Your task to perform on an android device: Open display settings Image 0: 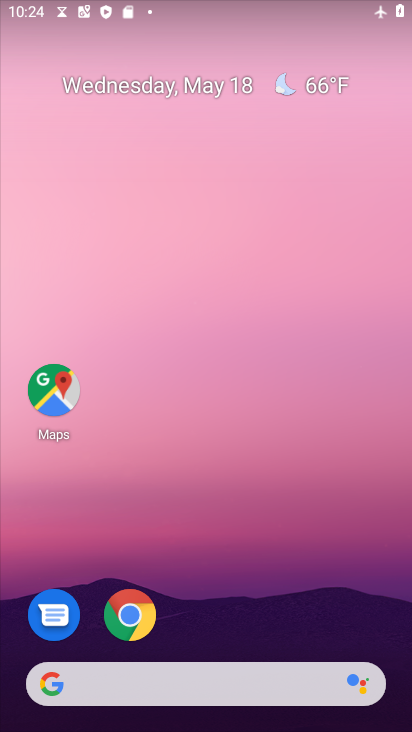
Step 0: drag from (292, 590) to (245, 6)
Your task to perform on an android device: Open display settings Image 1: 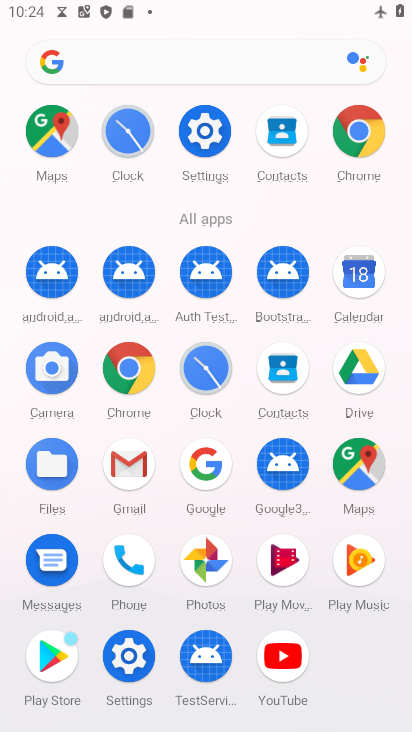
Step 1: click (205, 131)
Your task to perform on an android device: Open display settings Image 2: 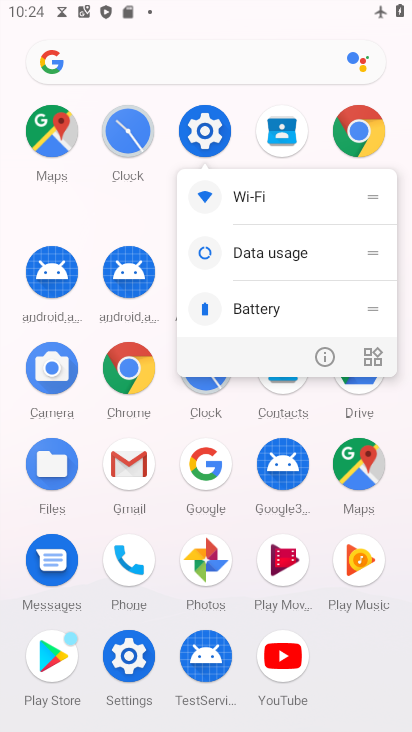
Step 2: click (205, 131)
Your task to perform on an android device: Open display settings Image 3: 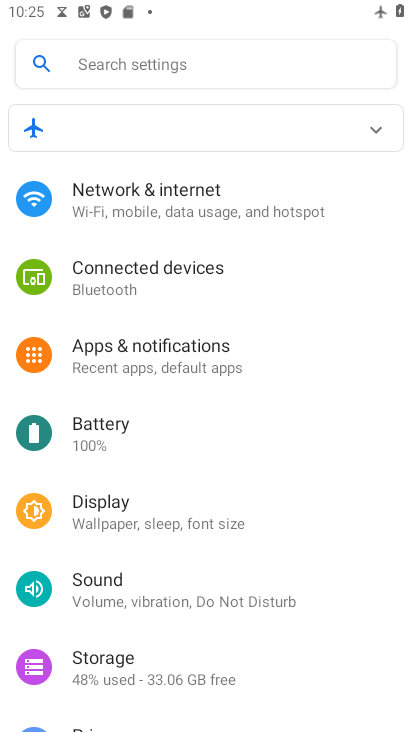
Step 3: drag from (265, 488) to (260, 173)
Your task to perform on an android device: Open display settings Image 4: 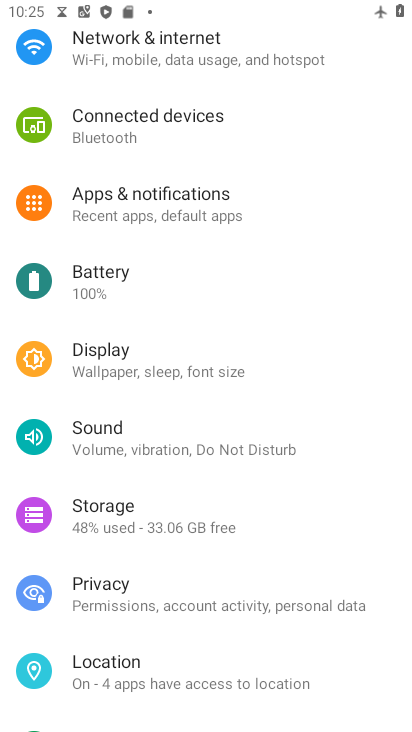
Step 4: click (114, 354)
Your task to perform on an android device: Open display settings Image 5: 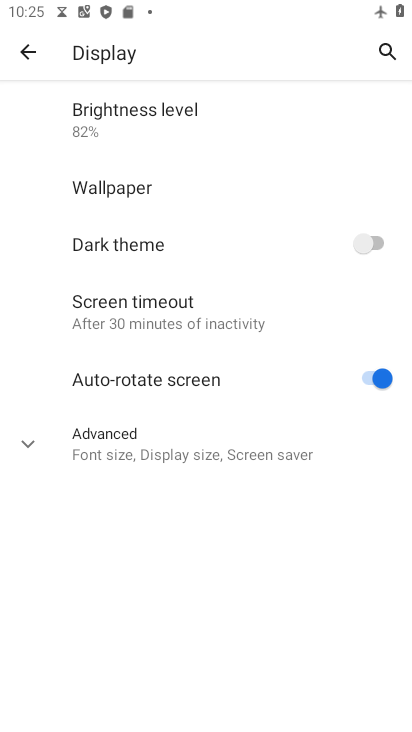
Step 5: click (51, 443)
Your task to perform on an android device: Open display settings Image 6: 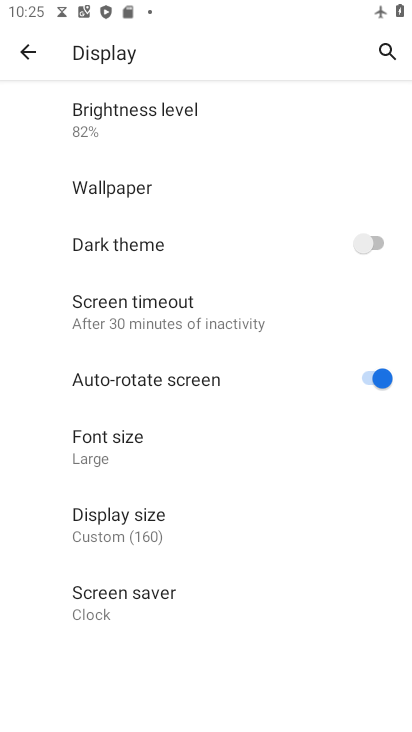
Step 6: task complete